Your task to perform on an android device: Show me the alarms in the clock app Image 0: 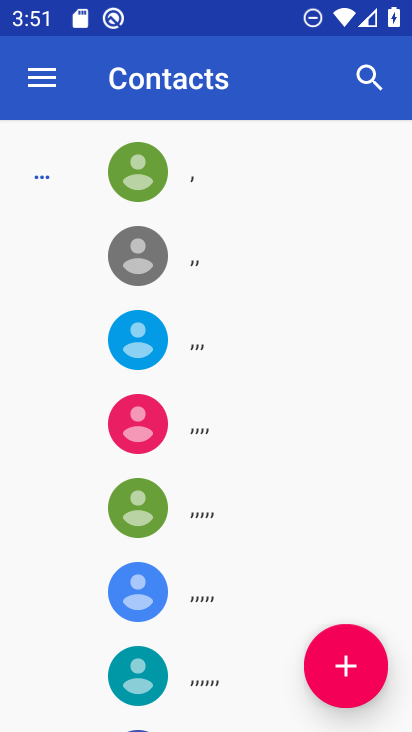
Step 0: press home button
Your task to perform on an android device: Show me the alarms in the clock app Image 1: 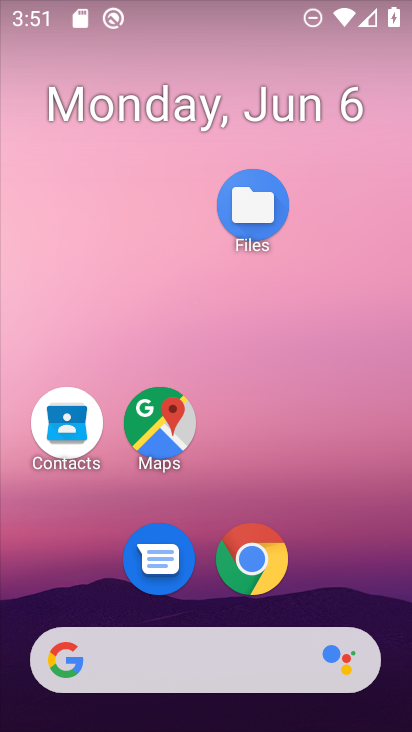
Step 1: drag from (213, 611) to (277, 35)
Your task to perform on an android device: Show me the alarms in the clock app Image 2: 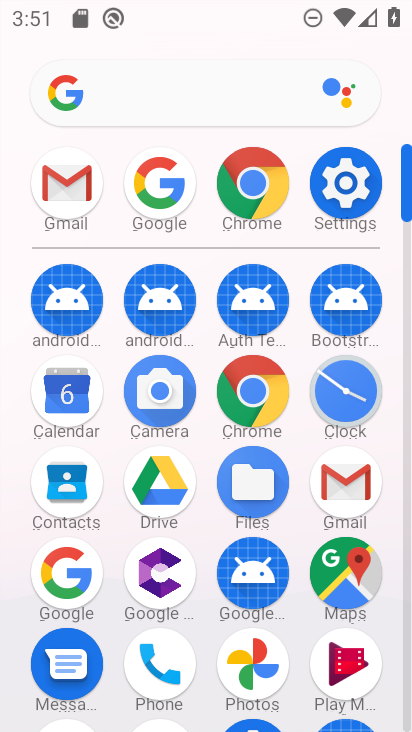
Step 2: click (361, 409)
Your task to perform on an android device: Show me the alarms in the clock app Image 3: 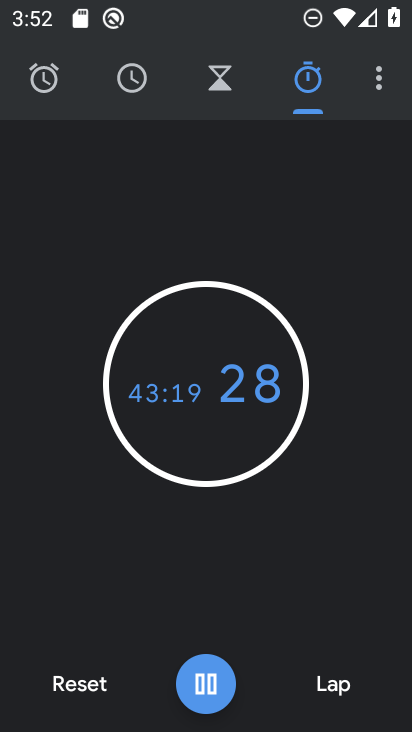
Step 3: click (35, 82)
Your task to perform on an android device: Show me the alarms in the clock app Image 4: 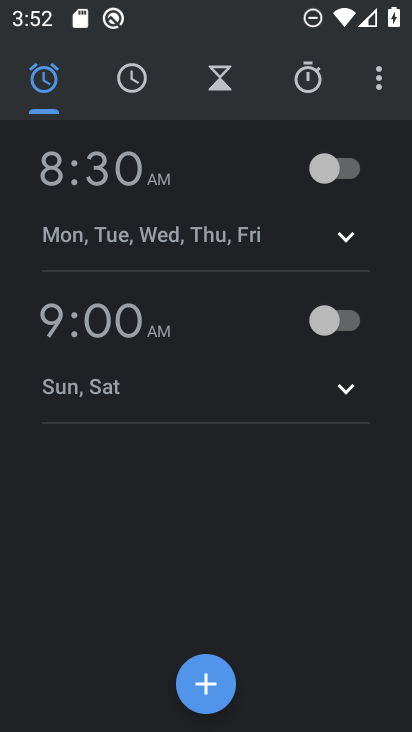
Step 4: task complete